Your task to perform on an android device: turn on translation in the chrome app Image 0: 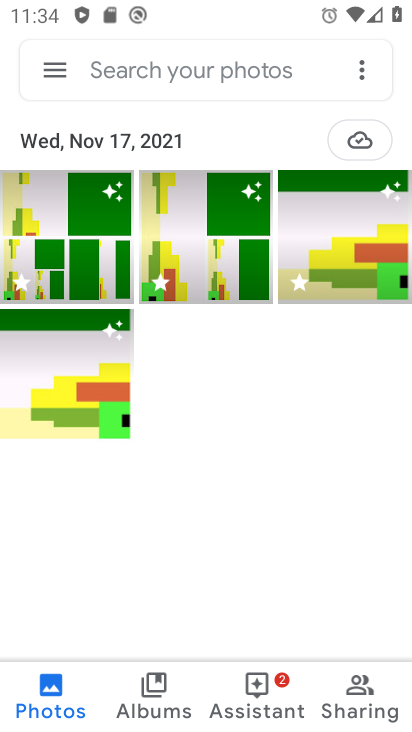
Step 0: press home button
Your task to perform on an android device: turn on translation in the chrome app Image 1: 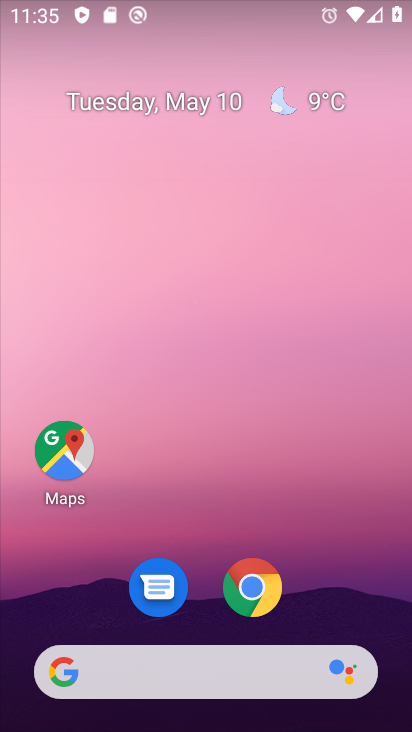
Step 1: click (249, 588)
Your task to perform on an android device: turn on translation in the chrome app Image 2: 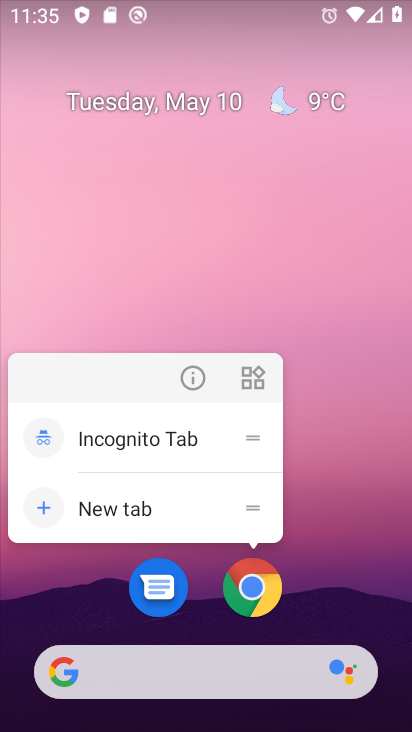
Step 2: click (259, 601)
Your task to perform on an android device: turn on translation in the chrome app Image 3: 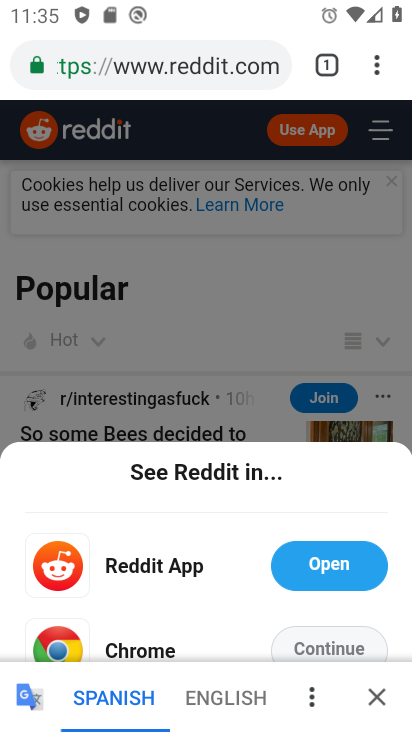
Step 3: drag from (380, 64) to (183, 648)
Your task to perform on an android device: turn on translation in the chrome app Image 4: 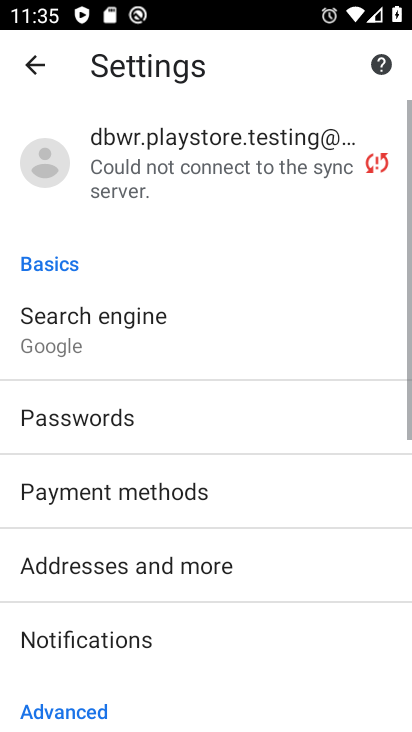
Step 4: drag from (188, 591) to (189, 274)
Your task to perform on an android device: turn on translation in the chrome app Image 5: 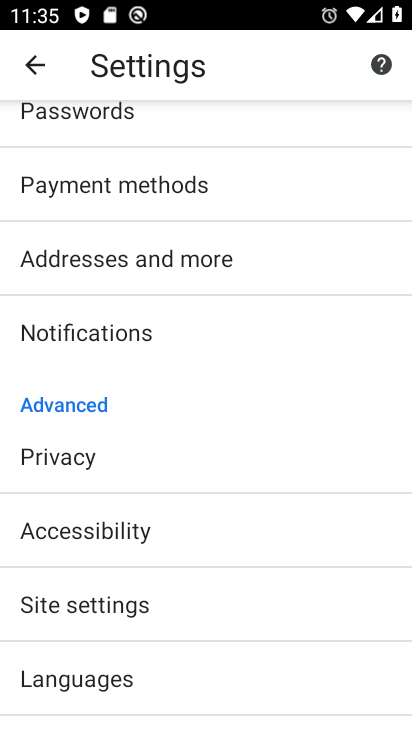
Step 5: click (102, 678)
Your task to perform on an android device: turn on translation in the chrome app Image 6: 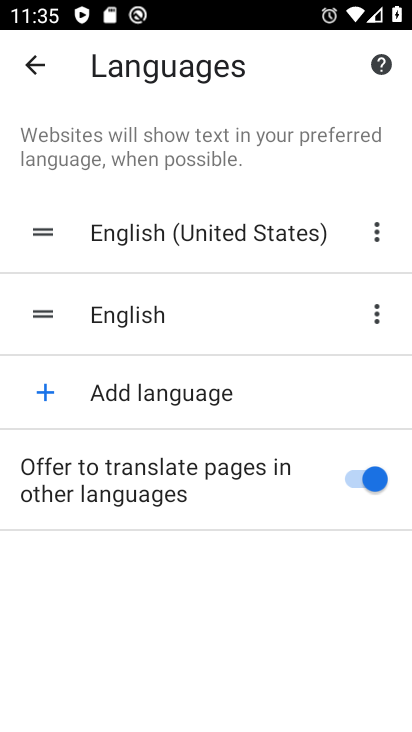
Step 6: task complete